Your task to perform on an android device: Go to wifi settings Image 0: 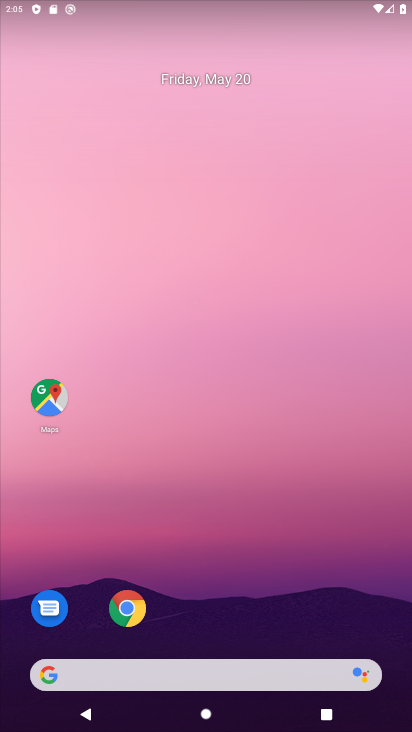
Step 0: drag from (66, 9) to (128, 637)
Your task to perform on an android device: Go to wifi settings Image 1: 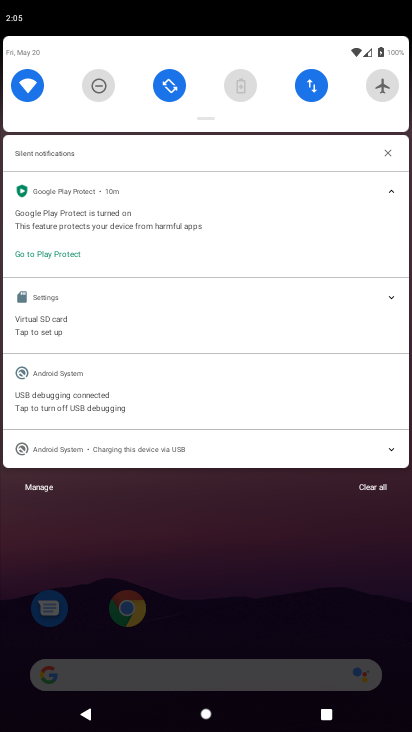
Step 1: click (34, 86)
Your task to perform on an android device: Go to wifi settings Image 2: 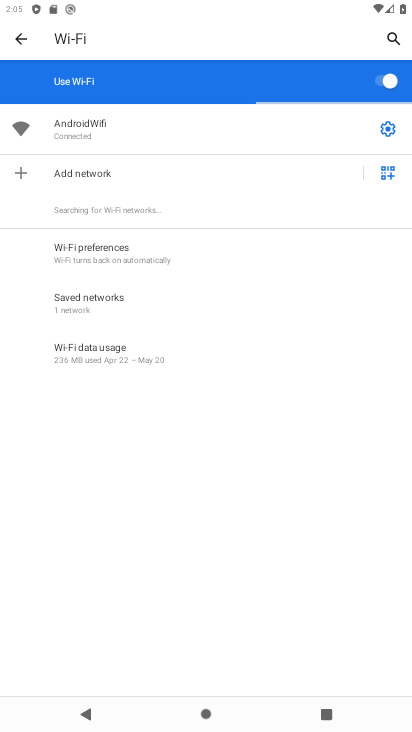
Step 2: task complete